Your task to perform on an android device: Go to Maps Image 0: 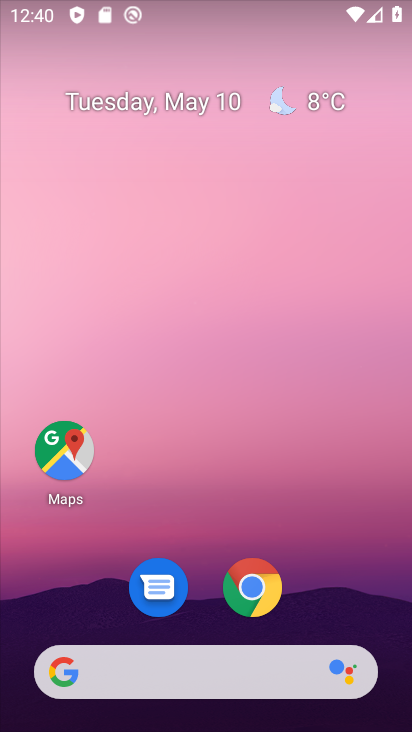
Step 0: drag from (7, 255) to (358, 279)
Your task to perform on an android device: Go to Maps Image 1: 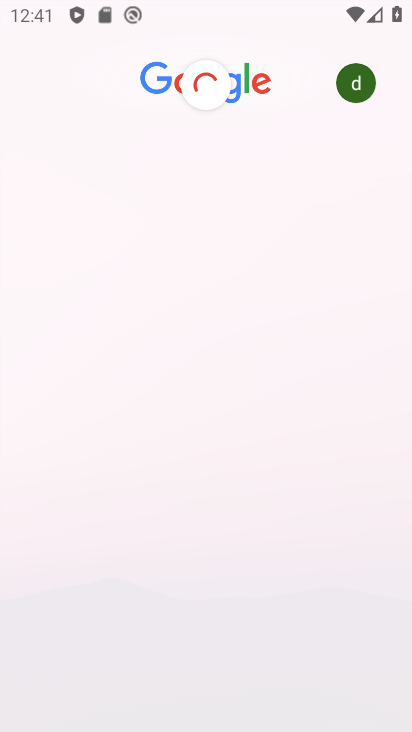
Step 1: press home button
Your task to perform on an android device: Go to Maps Image 2: 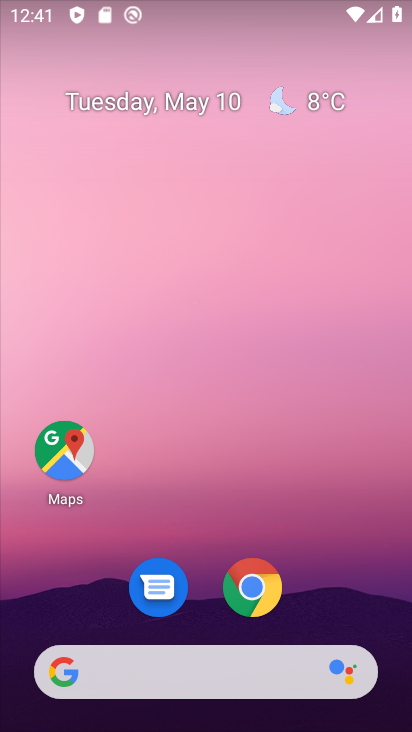
Step 2: drag from (281, 534) to (230, 547)
Your task to perform on an android device: Go to Maps Image 3: 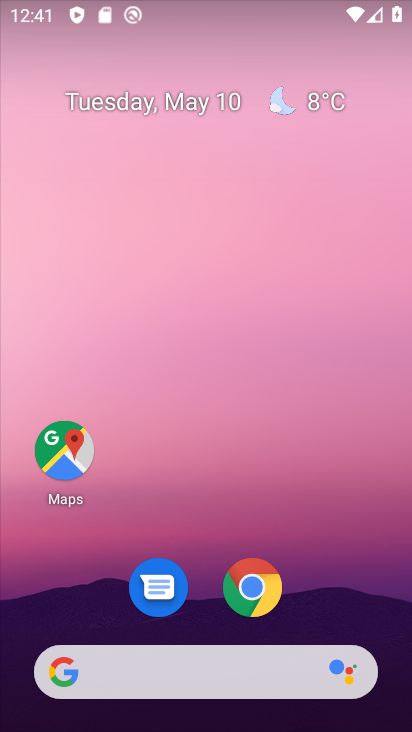
Step 3: click (62, 441)
Your task to perform on an android device: Go to Maps Image 4: 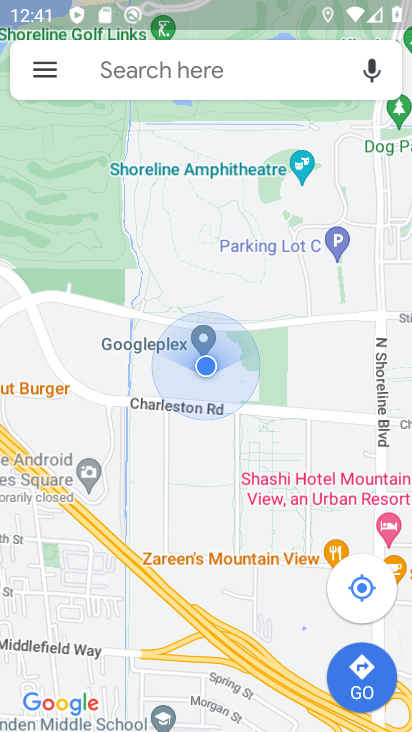
Step 4: task complete